Your task to perform on an android device: Search for the best rated book on Goodreads. Image 0: 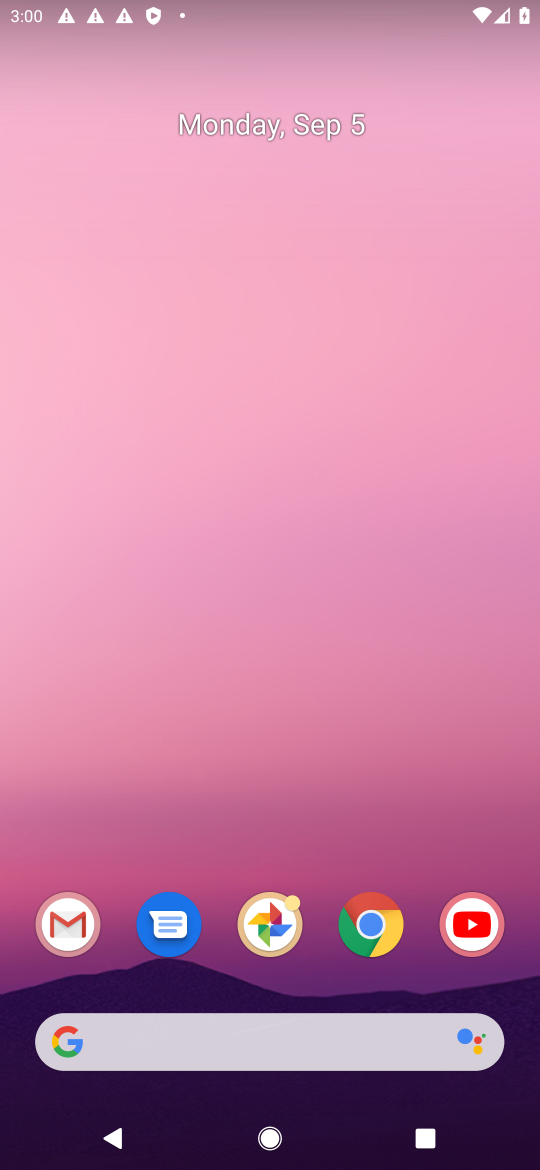
Step 0: click (361, 930)
Your task to perform on an android device: Search for the best rated book on Goodreads. Image 1: 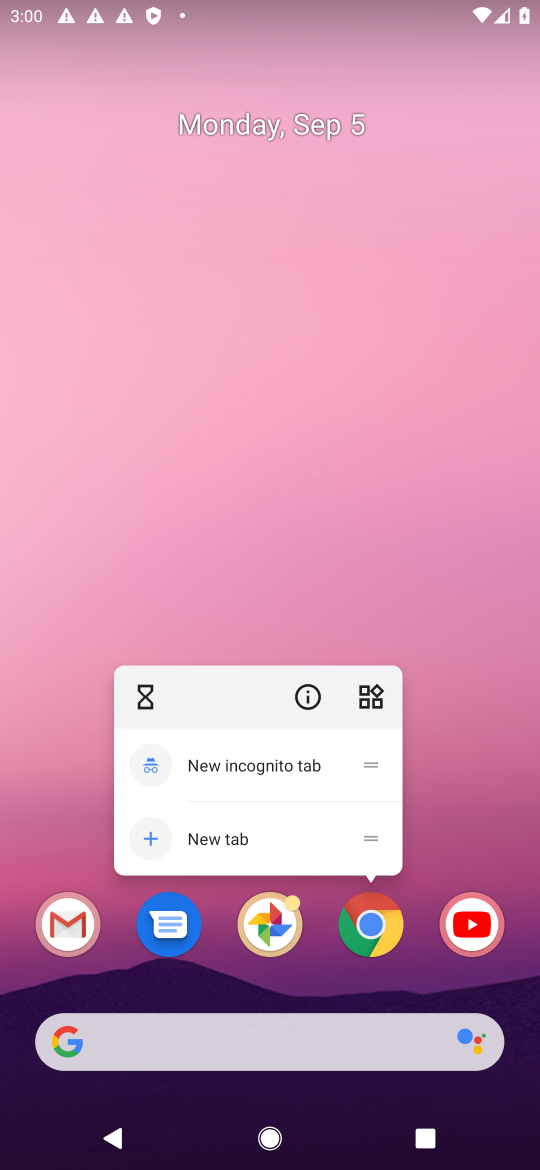
Step 1: click (361, 930)
Your task to perform on an android device: Search for the best rated book on Goodreads. Image 2: 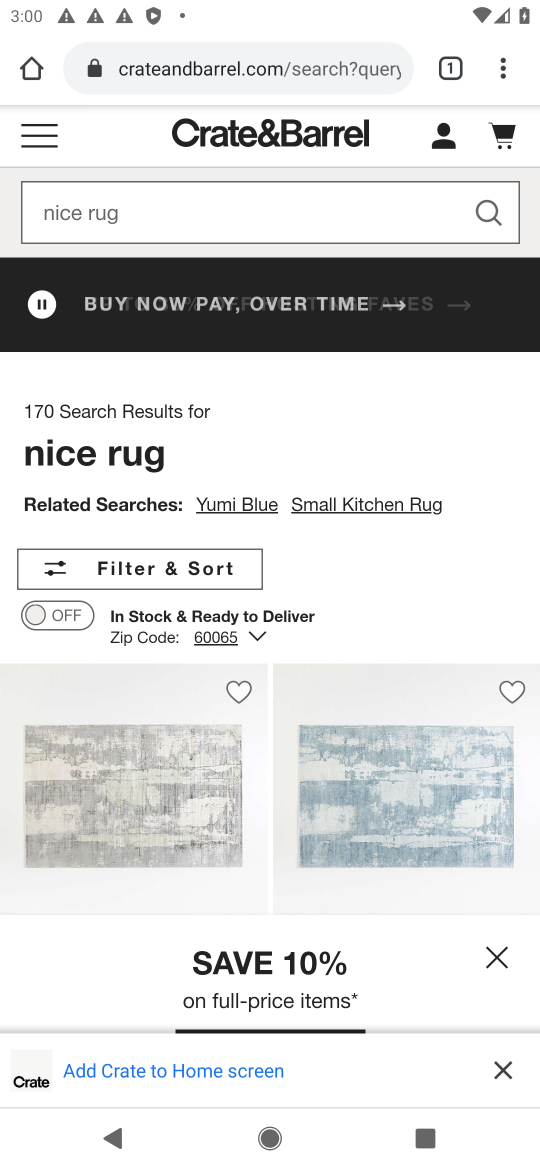
Step 2: click (303, 66)
Your task to perform on an android device: Search for the best rated book on Goodreads. Image 3: 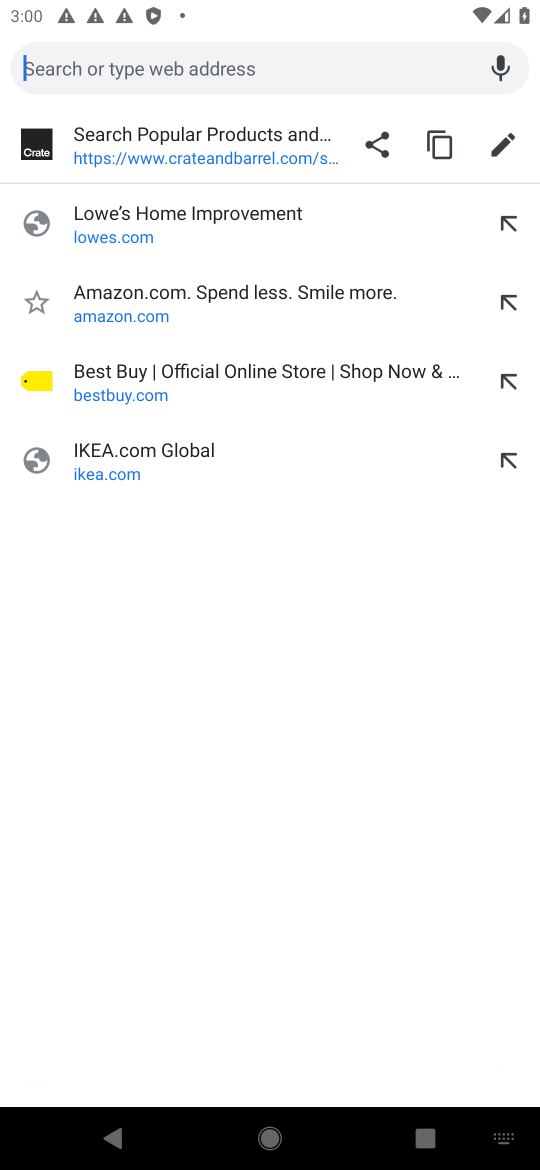
Step 3: type "Goodreads"
Your task to perform on an android device: Search for the best rated book on Goodreads. Image 4: 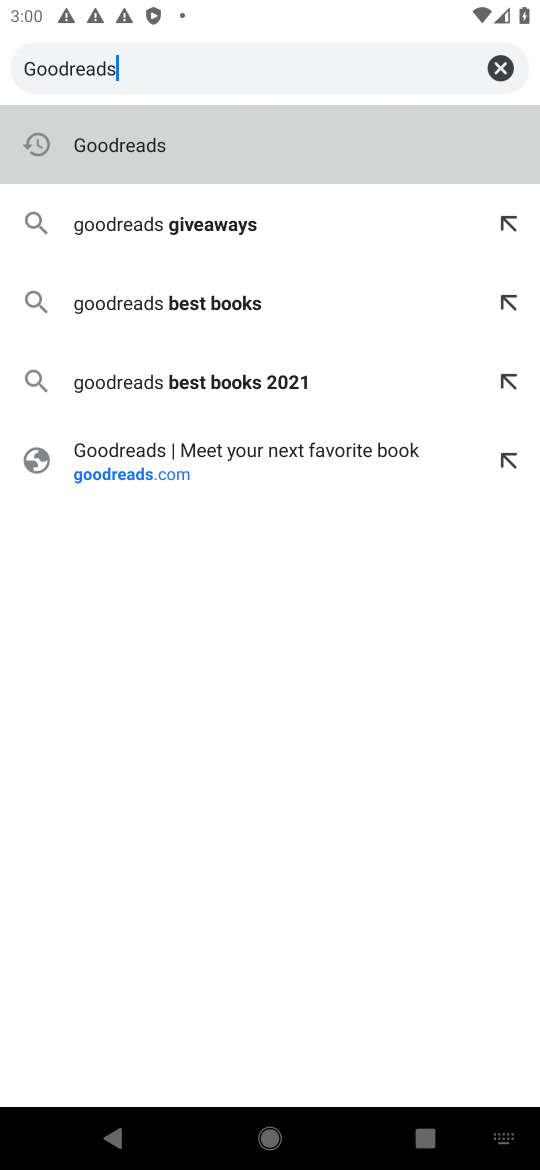
Step 4: click (167, 147)
Your task to perform on an android device: Search for the best rated book on Goodreads. Image 5: 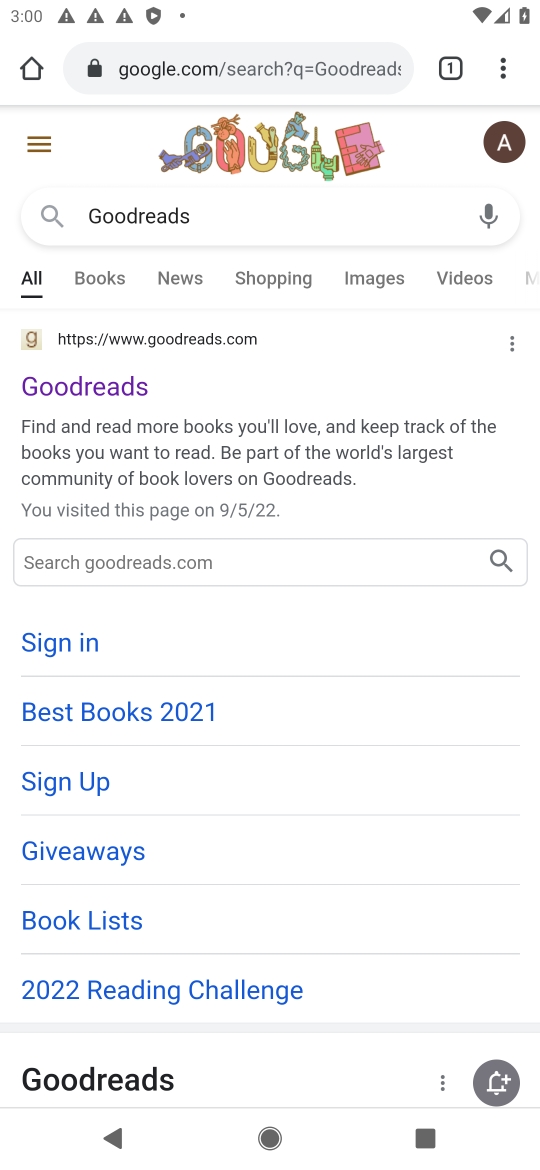
Step 5: click (102, 385)
Your task to perform on an android device: Search for the best rated book on Goodreads. Image 6: 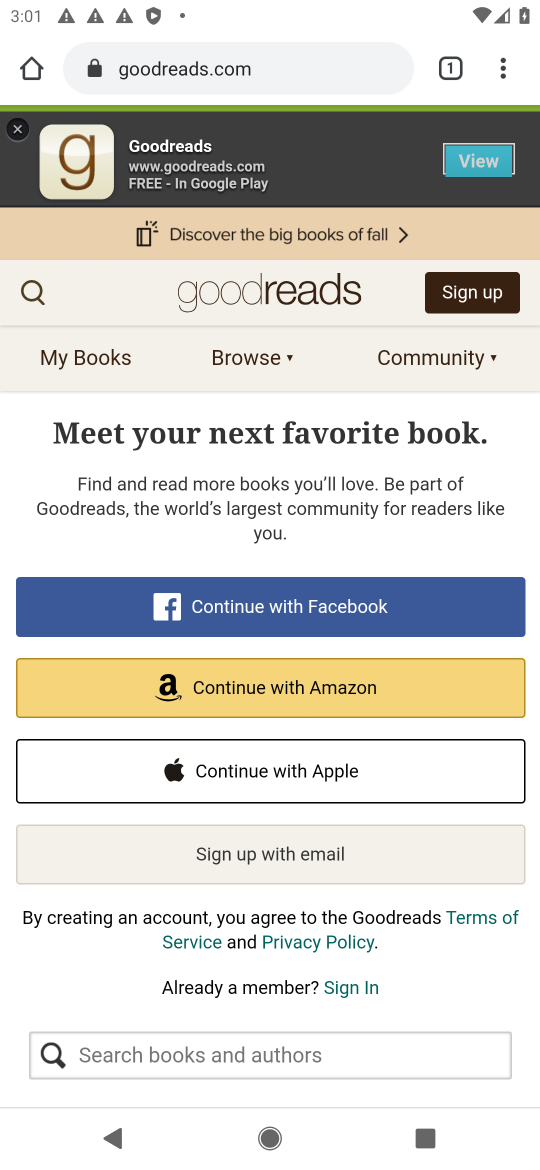
Step 6: click (22, 291)
Your task to perform on an android device: Search for the best rated book on Goodreads. Image 7: 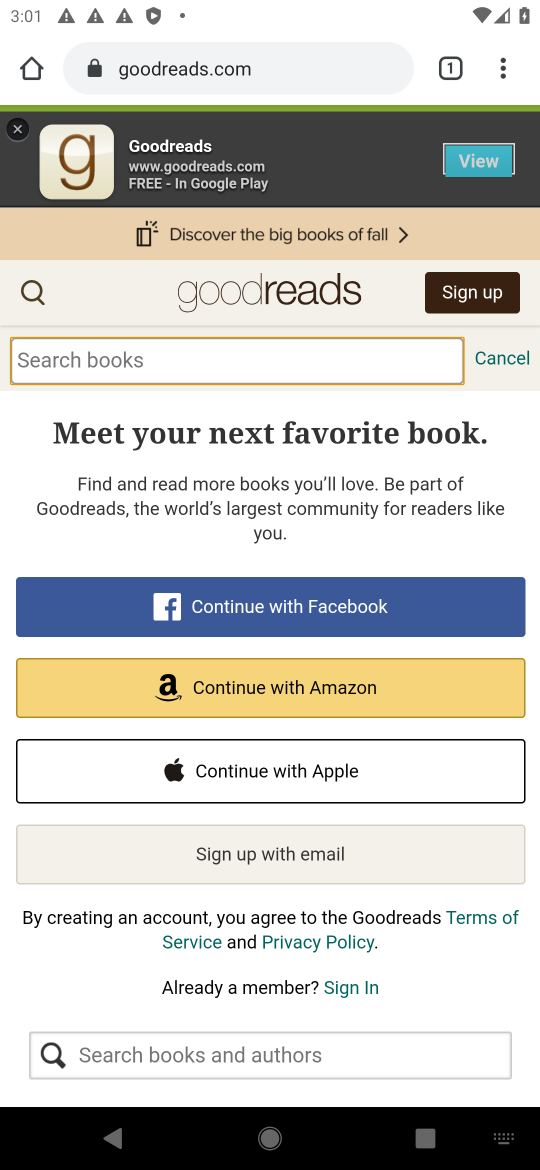
Step 7: type "best rated book"
Your task to perform on an android device: Search for the best rated book on Goodreads. Image 8: 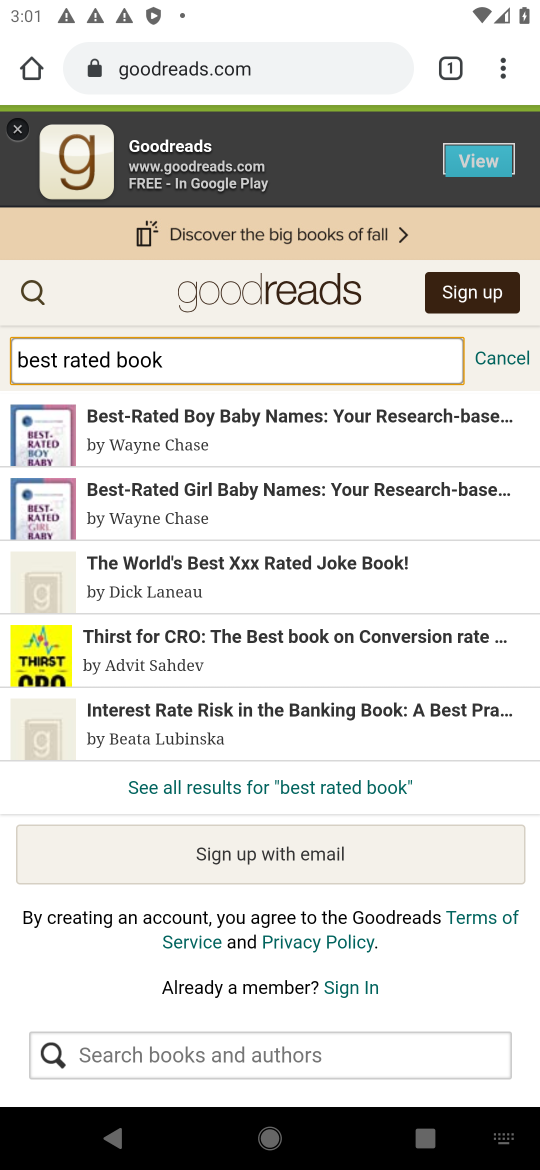
Step 8: task complete